Your task to perform on an android device: Open Chrome and go to settings Image 0: 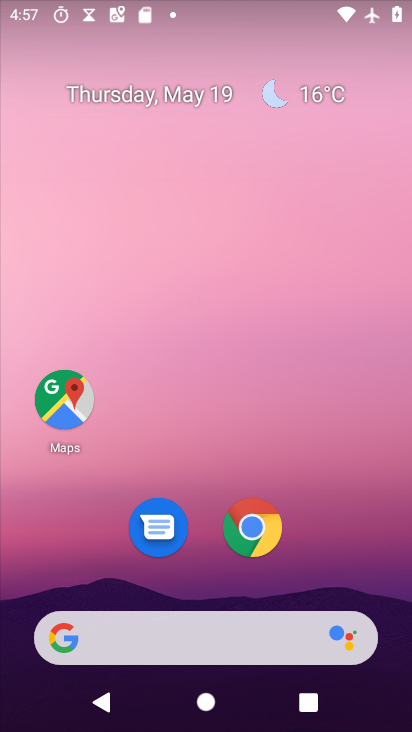
Step 0: click (256, 534)
Your task to perform on an android device: Open Chrome and go to settings Image 1: 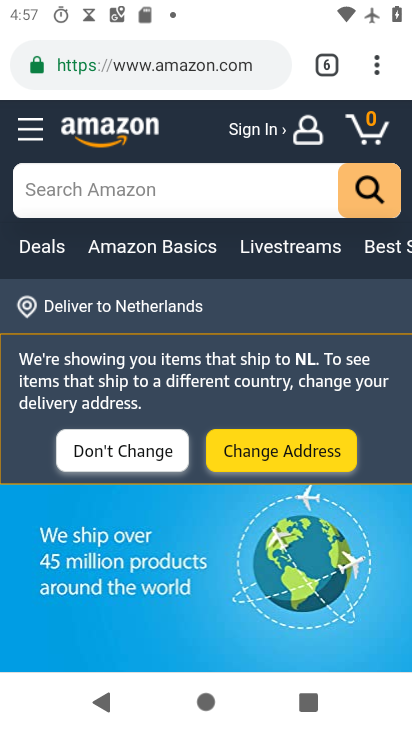
Step 1: click (364, 55)
Your task to perform on an android device: Open Chrome and go to settings Image 2: 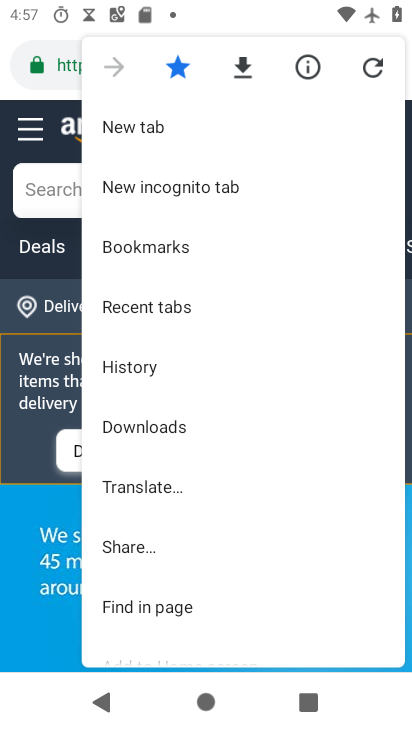
Step 2: drag from (248, 505) to (216, 122)
Your task to perform on an android device: Open Chrome and go to settings Image 3: 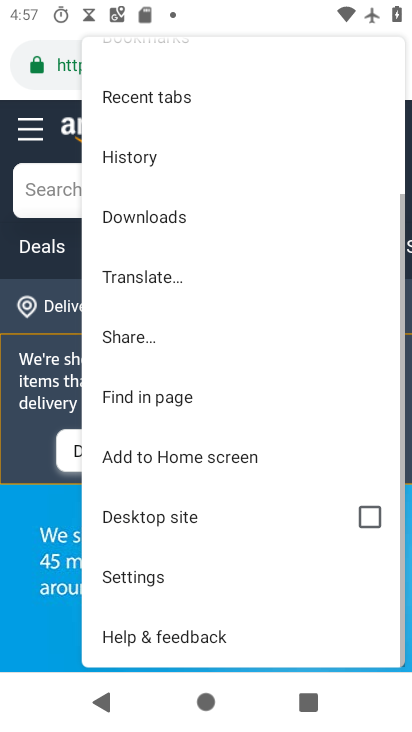
Step 3: click (176, 574)
Your task to perform on an android device: Open Chrome and go to settings Image 4: 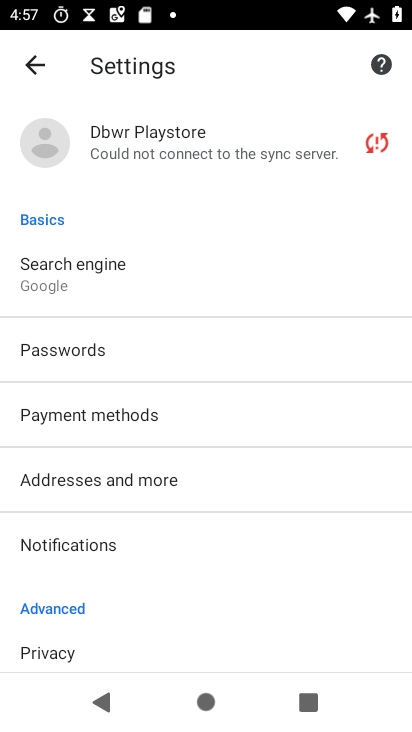
Step 4: task complete